Your task to perform on an android device: turn on translation in the chrome app Image 0: 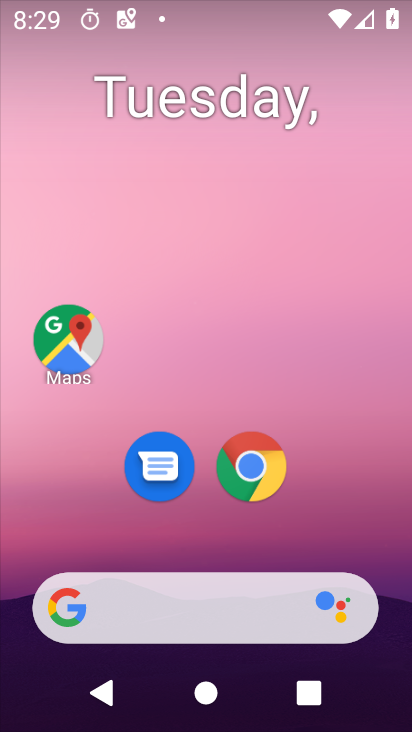
Step 0: click (263, 471)
Your task to perform on an android device: turn on translation in the chrome app Image 1: 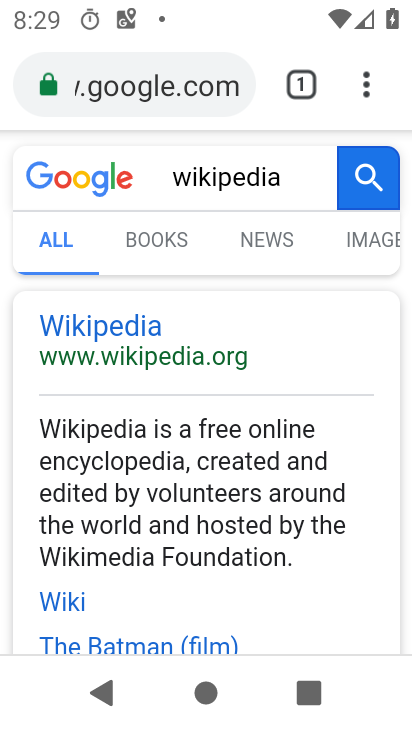
Step 1: click (370, 92)
Your task to perform on an android device: turn on translation in the chrome app Image 2: 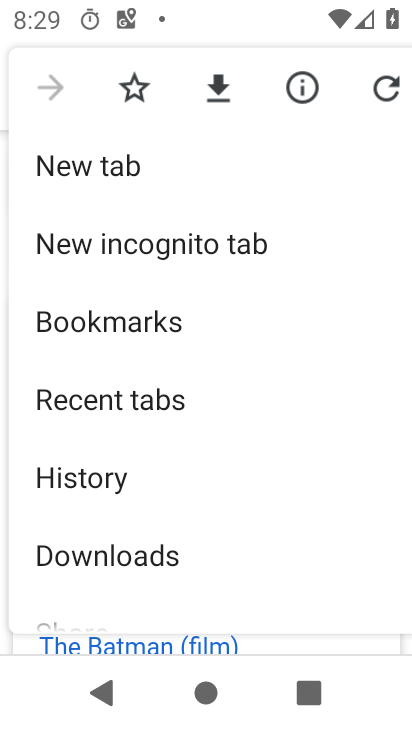
Step 2: drag from (122, 545) to (162, 263)
Your task to perform on an android device: turn on translation in the chrome app Image 3: 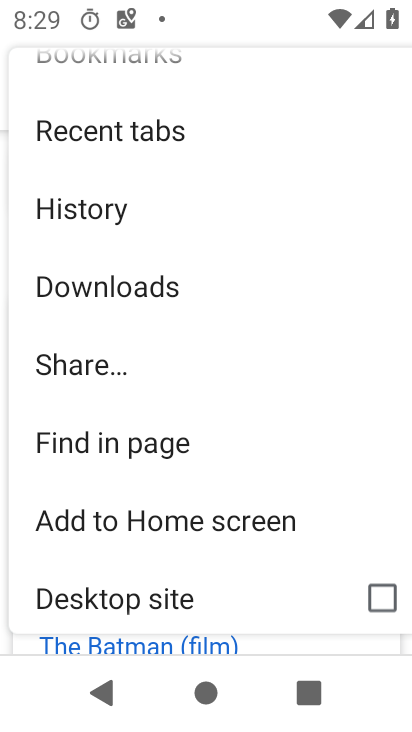
Step 3: drag from (151, 511) to (145, 186)
Your task to perform on an android device: turn on translation in the chrome app Image 4: 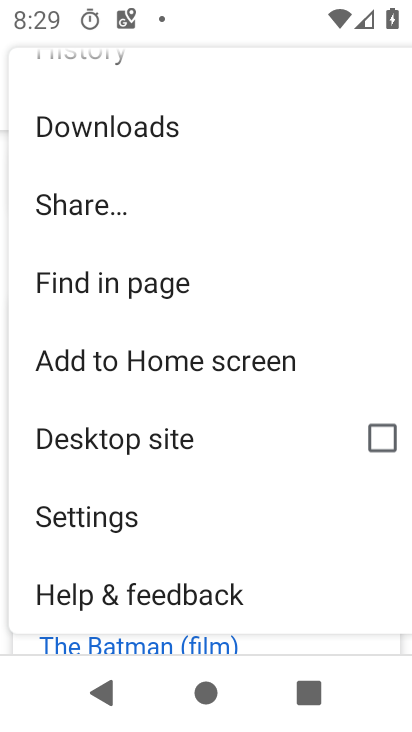
Step 4: click (98, 520)
Your task to perform on an android device: turn on translation in the chrome app Image 5: 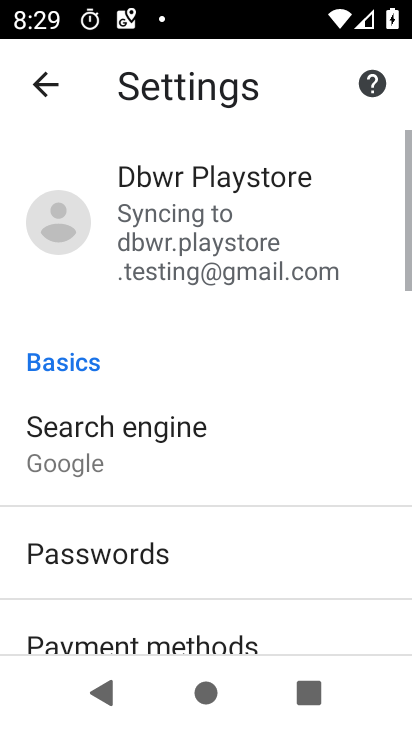
Step 5: drag from (117, 574) to (182, 252)
Your task to perform on an android device: turn on translation in the chrome app Image 6: 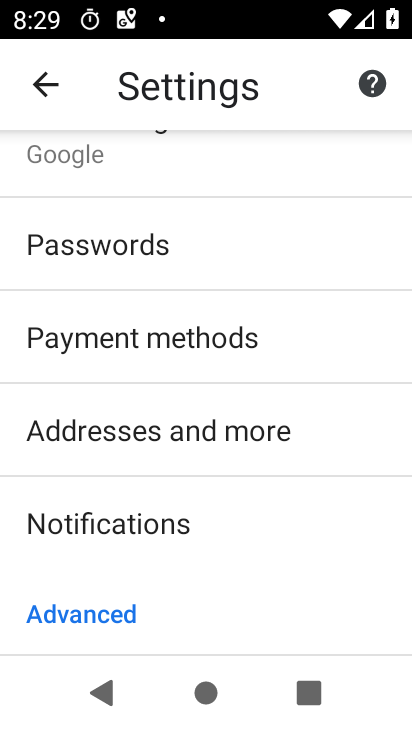
Step 6: drag from (181, 541) to (173, 290)
Your task to perform on an android device: turn on translation in the chrome app Image 7: 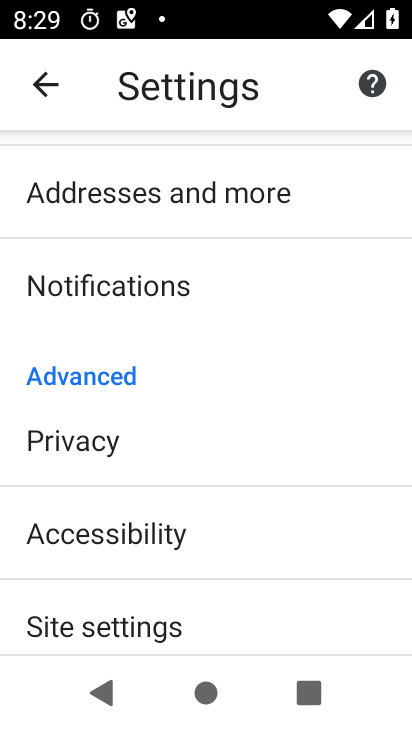
Step 7: drag from (160, 561) to (199, 102)
Your task to perform on an android device: turn on translation in the chrome app Image 8: 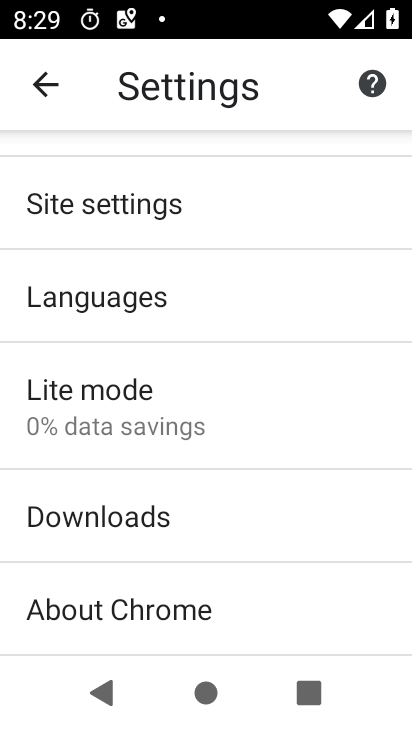
Step 8: click (122, 300)
Your task to perform on an android device: turn on translation in the chrome app Image 9: 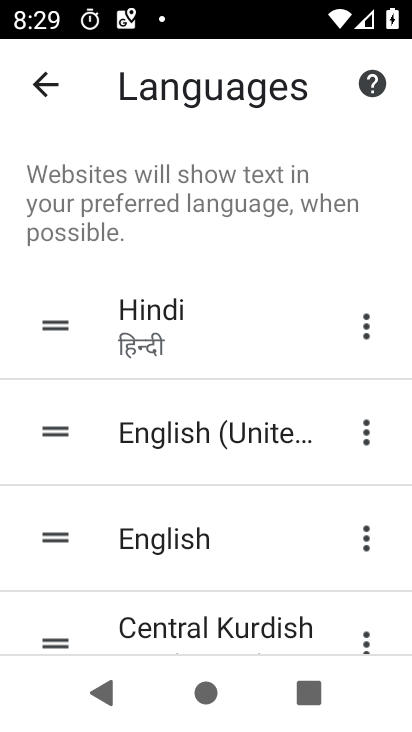
Step 9: task complete